Your task to perform on an android device: Check the settings for the Google Play Books app Image 0: 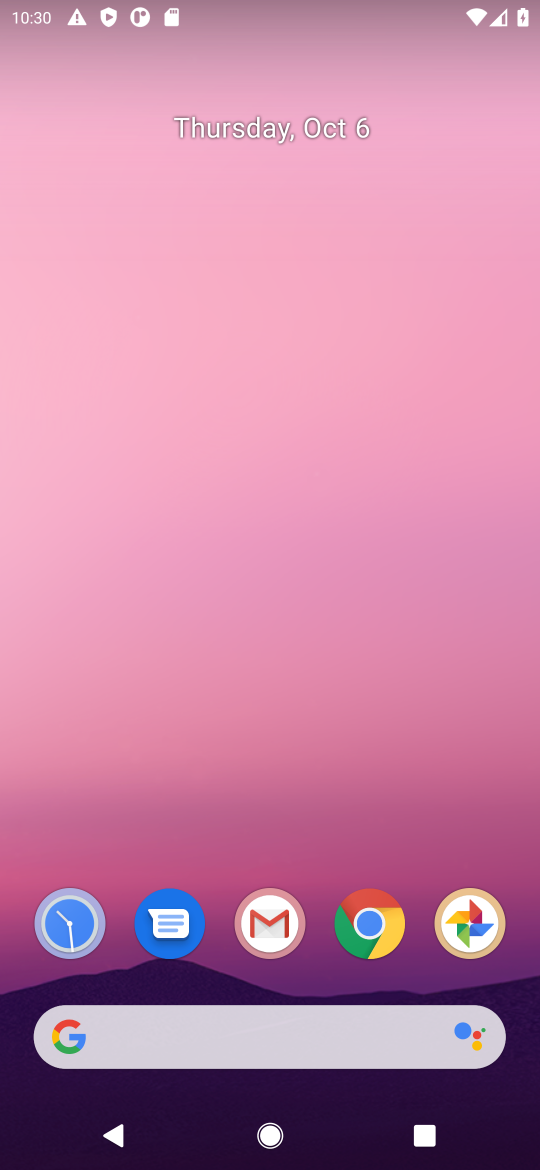
Step 0: drag from (313, 942) to (341, 55)
Your task to perform on an android device: Check the settings for the Google Play Books app Image 1: 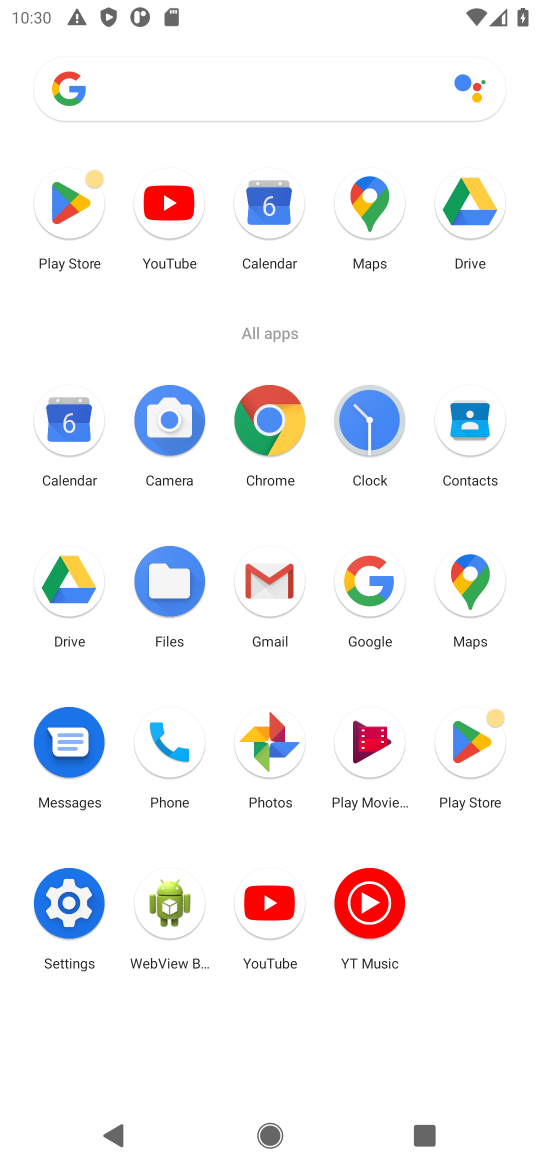
Step 1: task complete